Your task to perform on an android device: all mails in gmail Image 0: 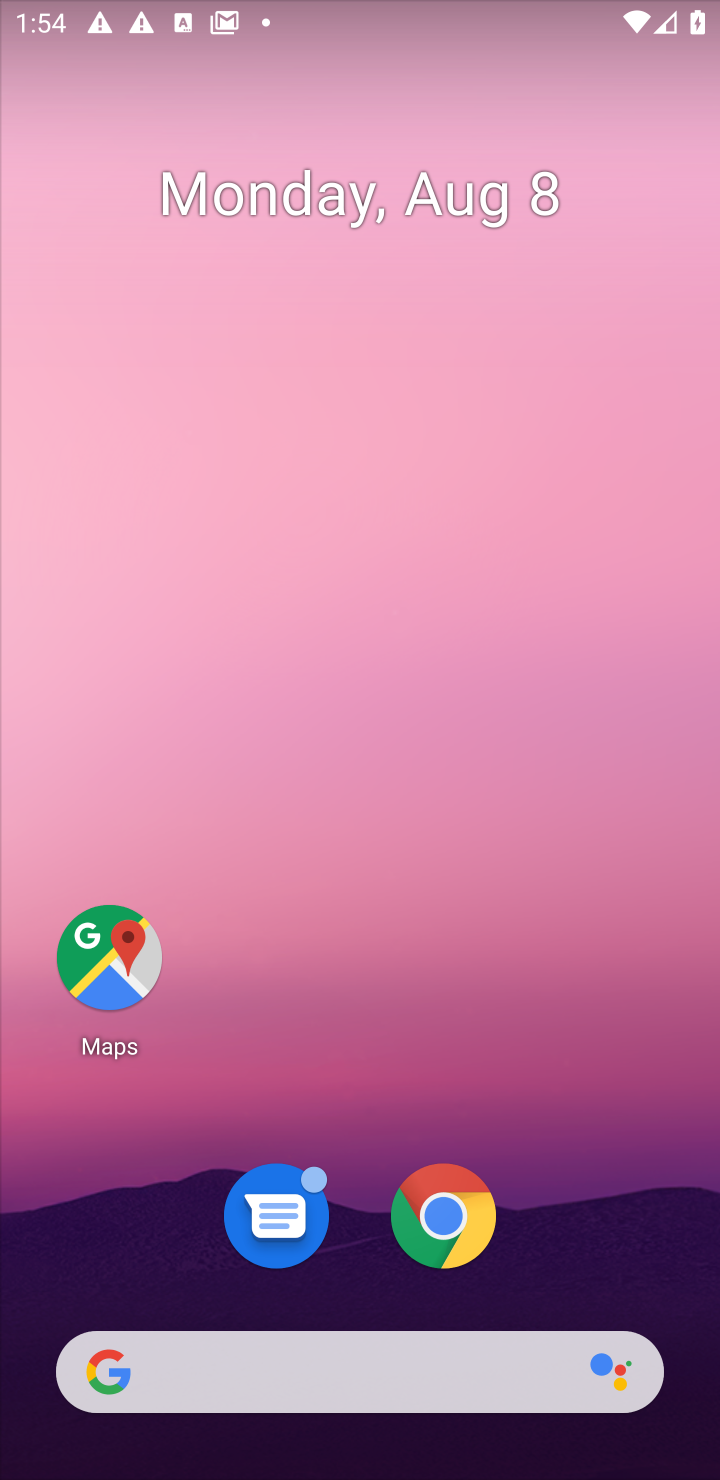
Step 0: drag from (406, 1300) to (277, 490)
Your task to perform on an android device: all mails in gmail Image 1: 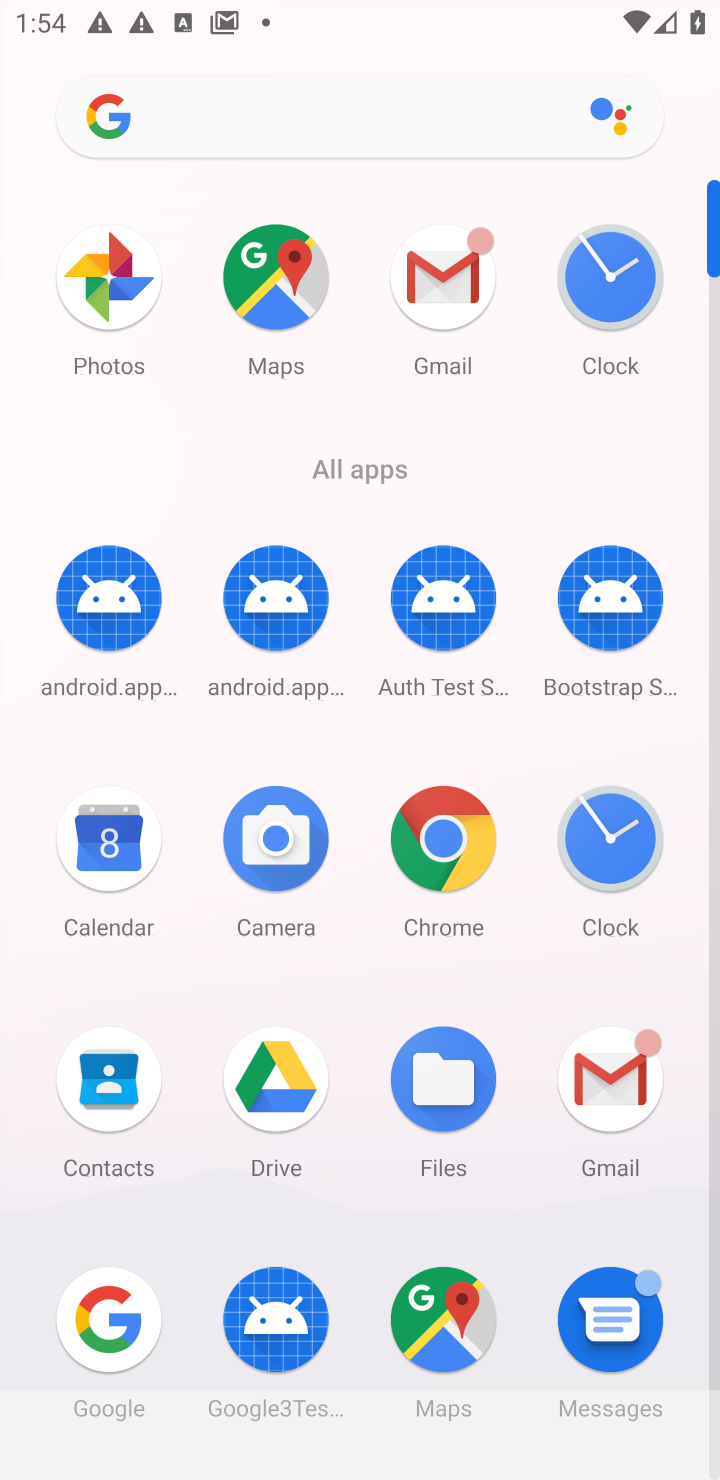
Step 1: click (454, 330)
Your task to perform on an android device: all mails in gmail Image 2: 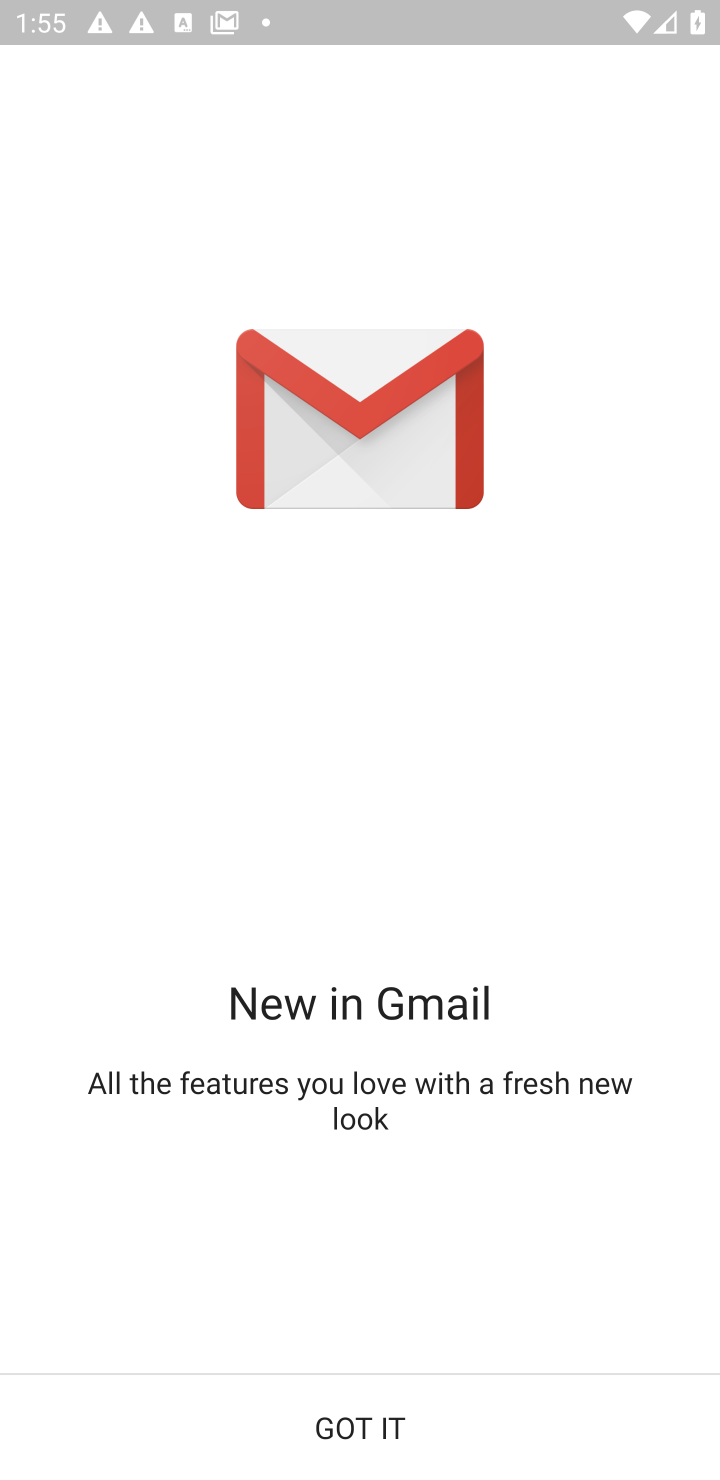
Step 2: click (305, 1414)
Your task to perform on an android device: all mails in gmail Image 3: 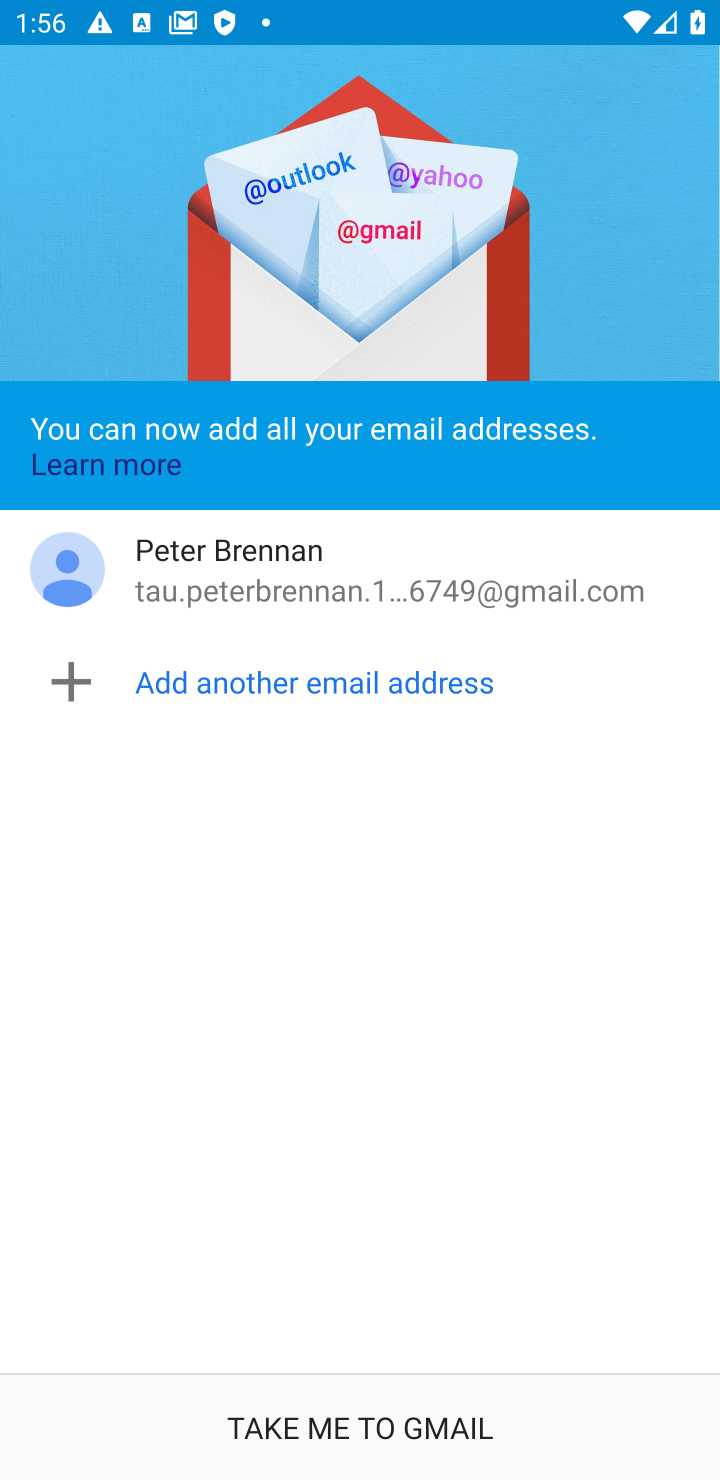
Step 3: click (382, 1420)
Your task to perform on an android device: all mails in gmail Image 4: 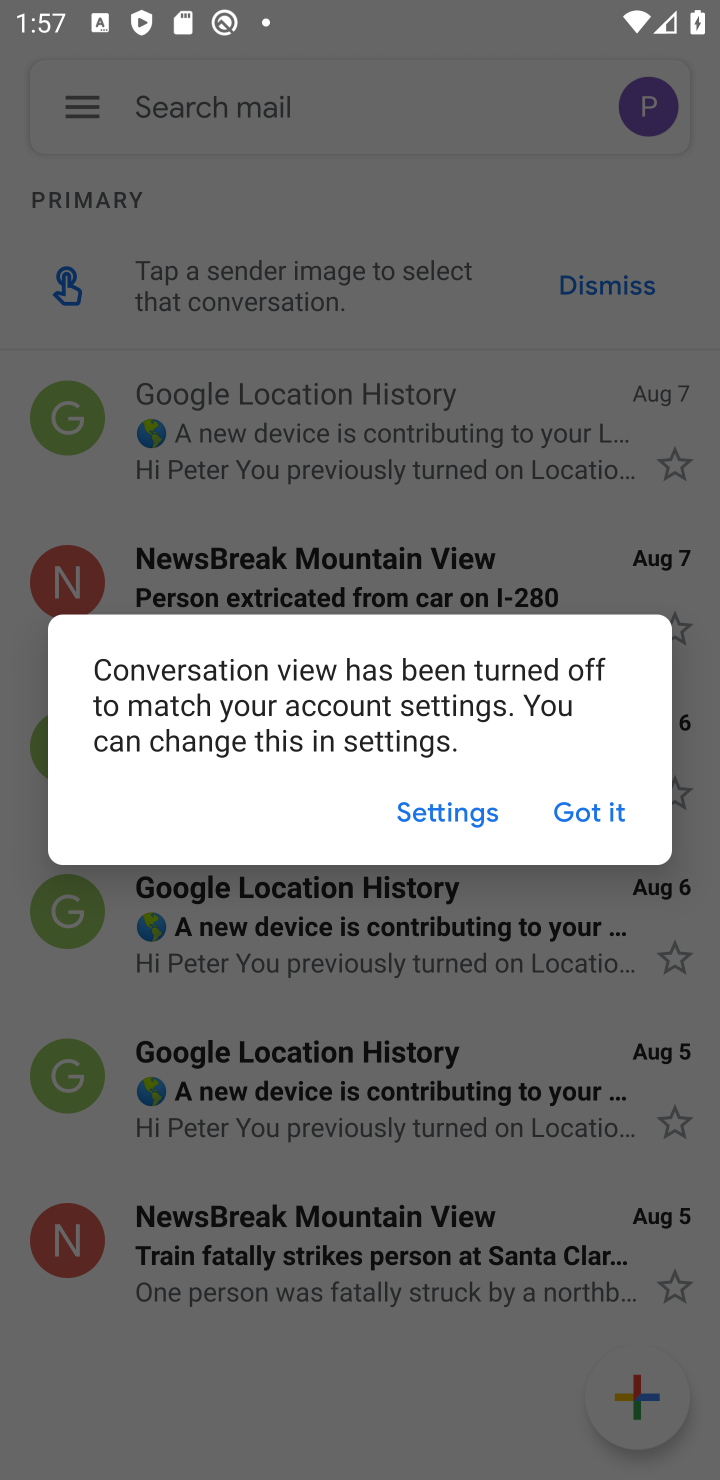
Step 4: click (590, 804)
Your task to perform on an android device: all mails in gmail Image 5: 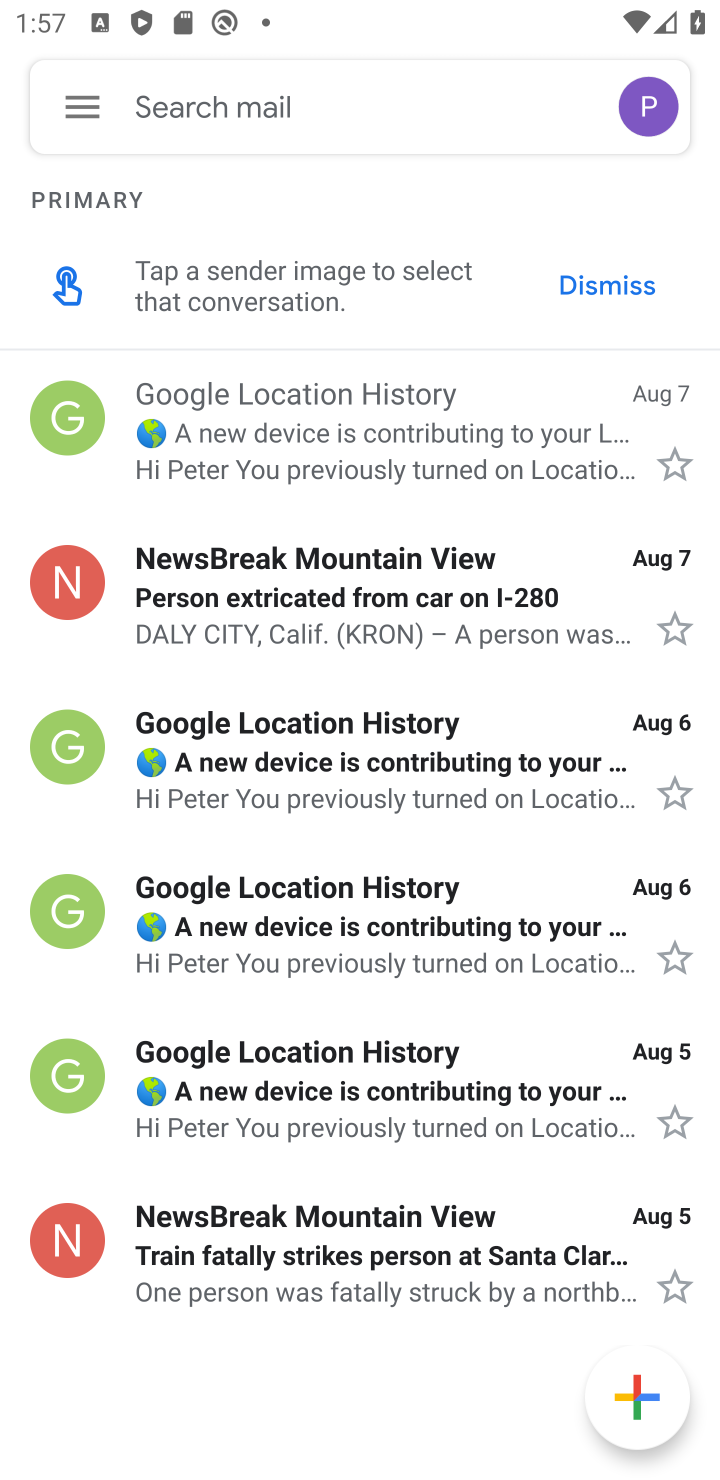
Step 5: click (103, 113)
Your task to perform on an android device: all mails in gmail Image 6: 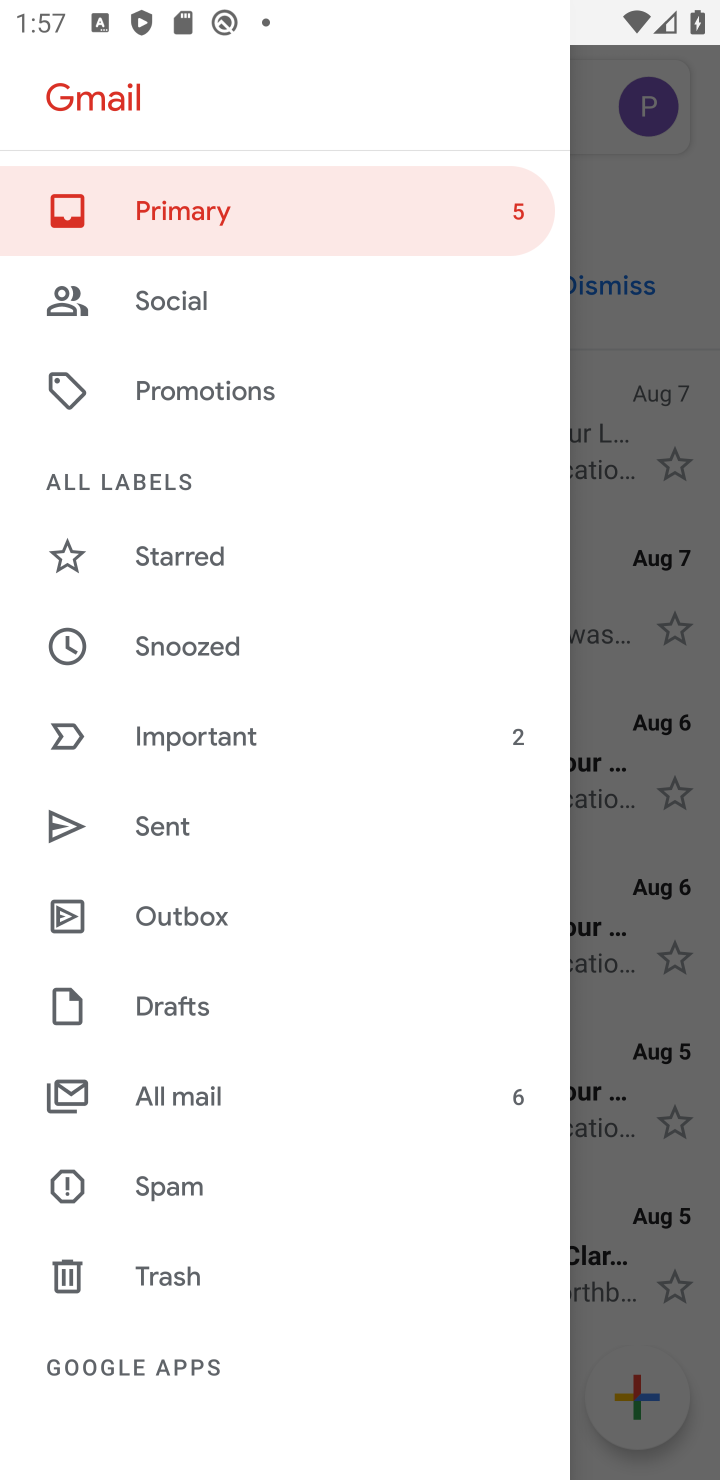
Step 6: click (157, 1091)
Your task to perform on an android device: all mails in gmail Image 7: 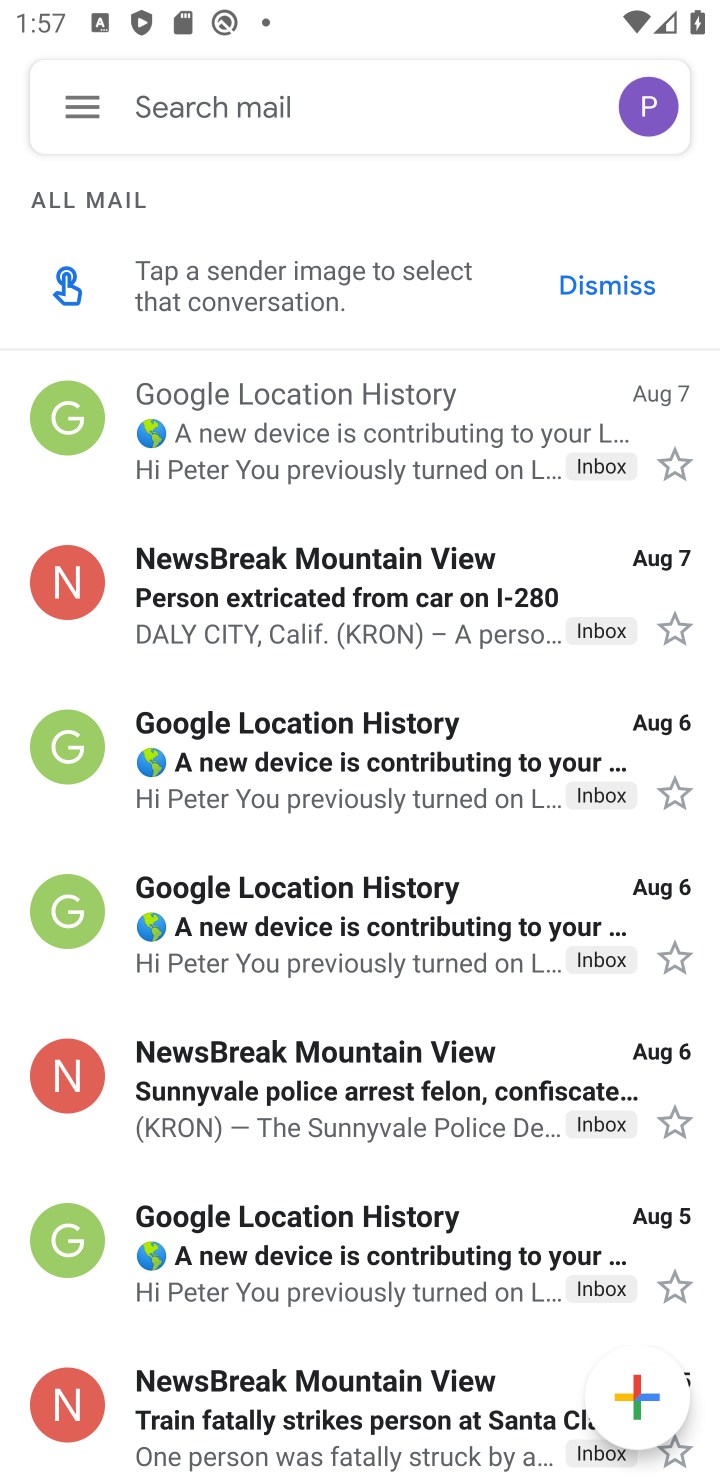
Step 7: click (76, 102)
Your task to perform on an android device: all mails in gmail Image 8: 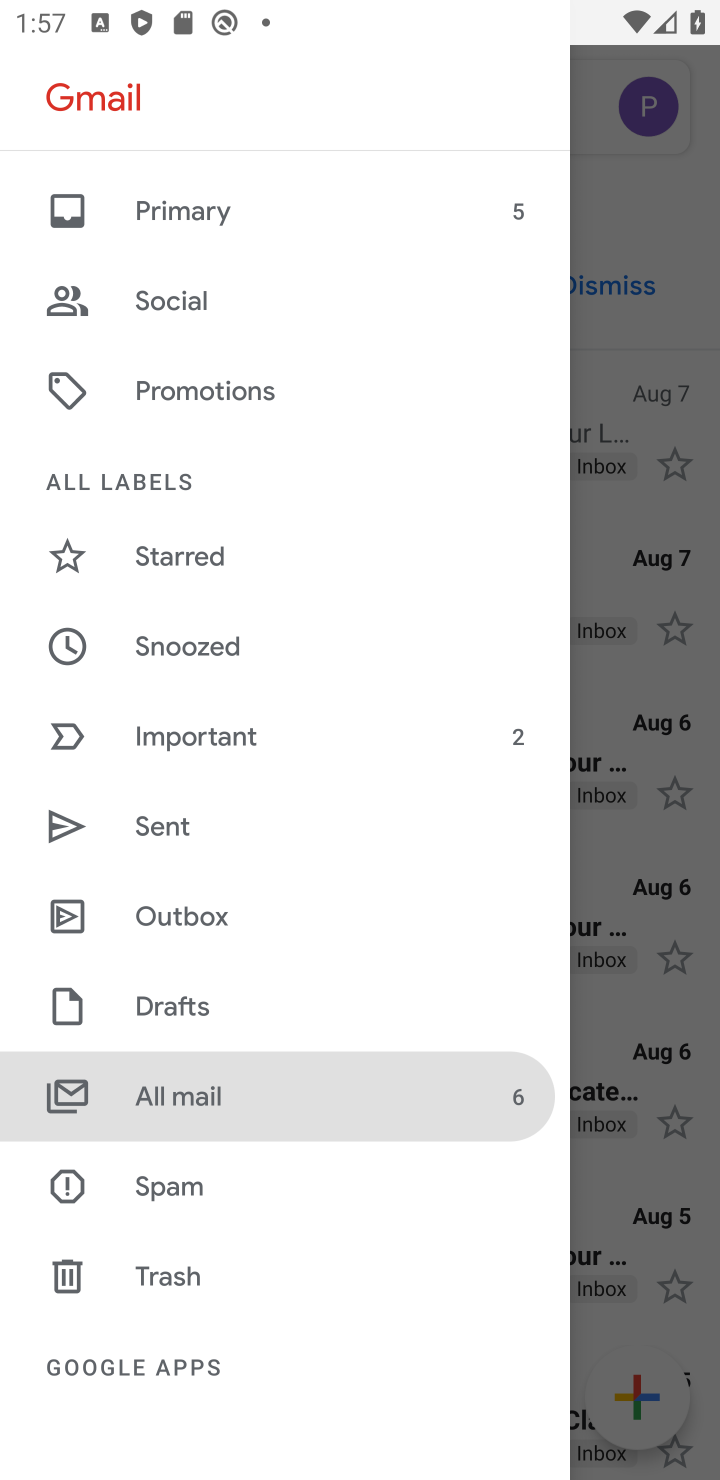
Step 8: task complete